Your task to perform on an android device: turn on airplane mode Image 0: 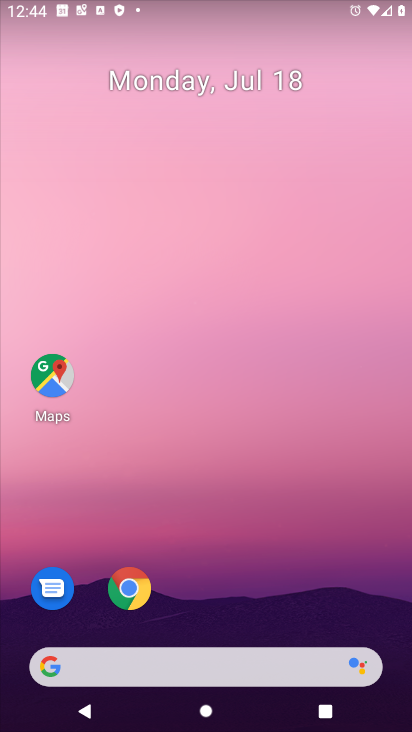
Step 0: drag from (197, 663) to (258, 342)
Your task to perform on an android device: turn on airplane mode Image 1: 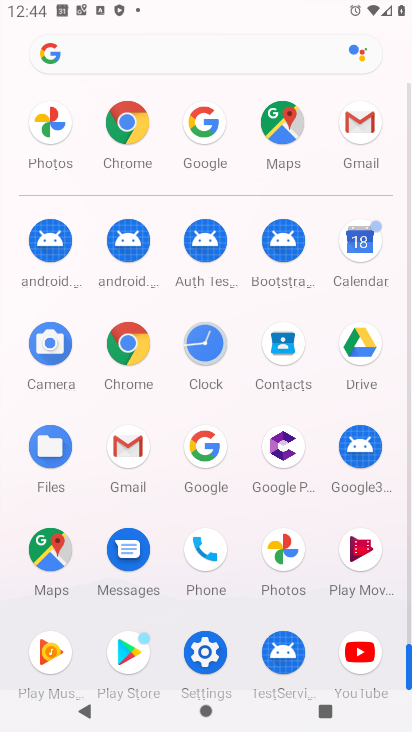
Step 1: click (211, 648)
Your task to perform on an android device: turn on airplane mode Image 2: 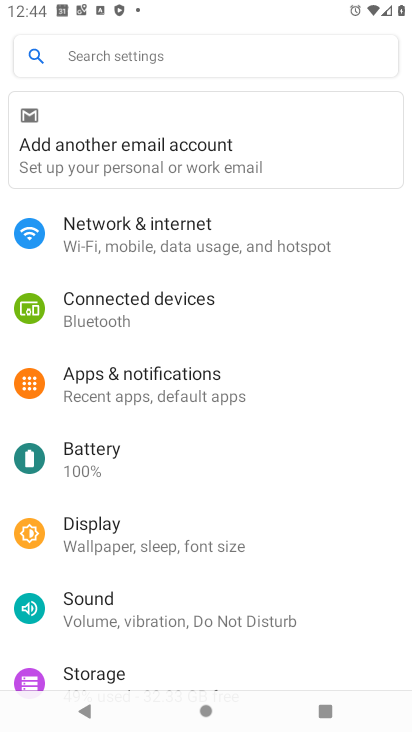
Step 2: click (202, 225)
Your task to perform on an android device: turn on airplane mode Image 3: 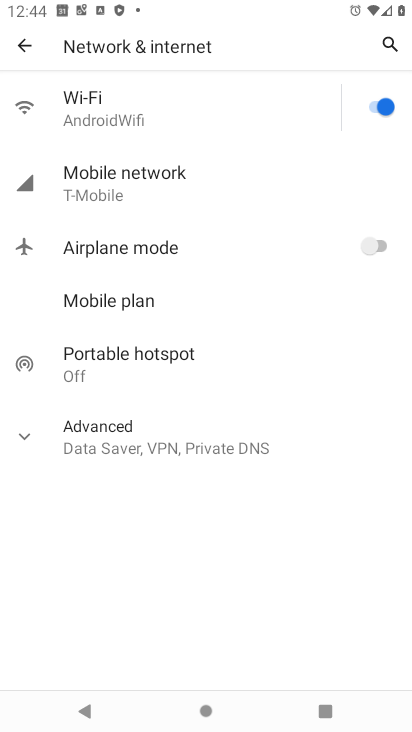
Step 3: click (171, 235)
Your task to perform on an android device: turn on airplane mode Image 4: 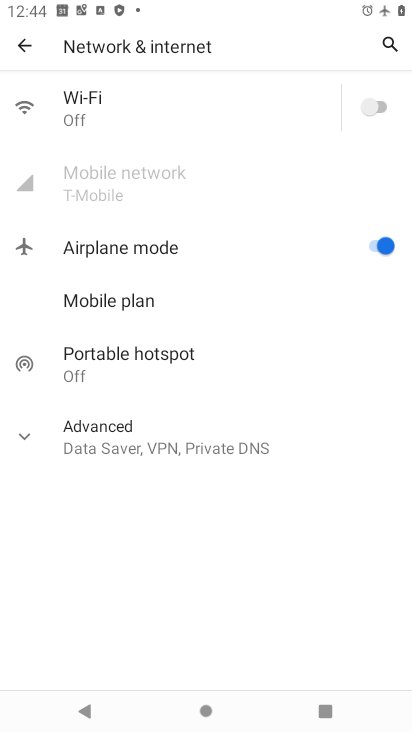
Step 4: task complete